Your task to perform on an android device: turn on data saver in the chrome app Image 0: 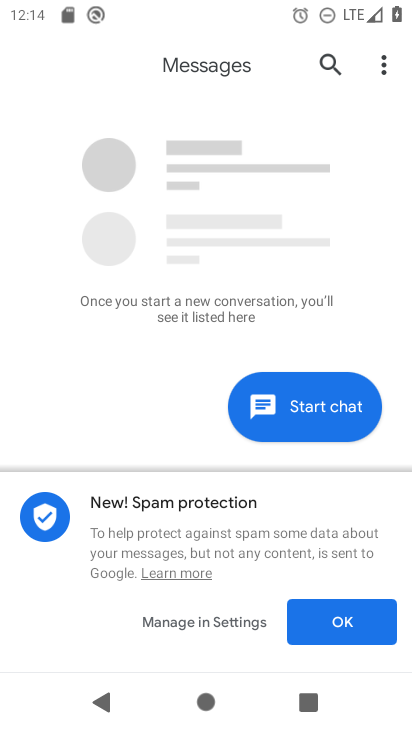
Step 0: press home button
Your task to perform on an android device: turn on data saver in the chrome app Image 1: 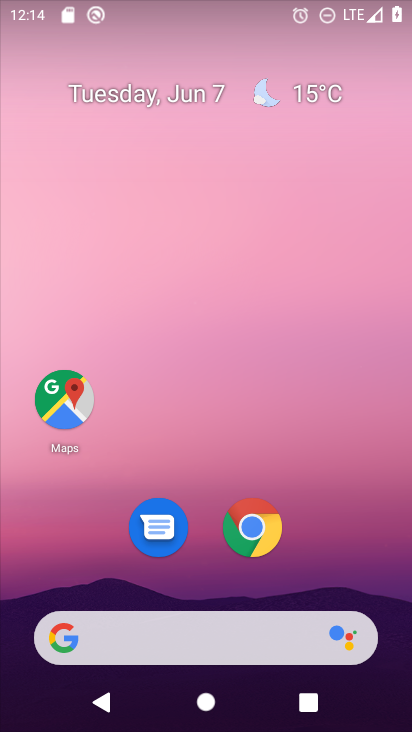
Step 1: drag from (365, 553) to (349, 85)
Your task to perform on an android device: turn on data saver in the chrome app Image 2: 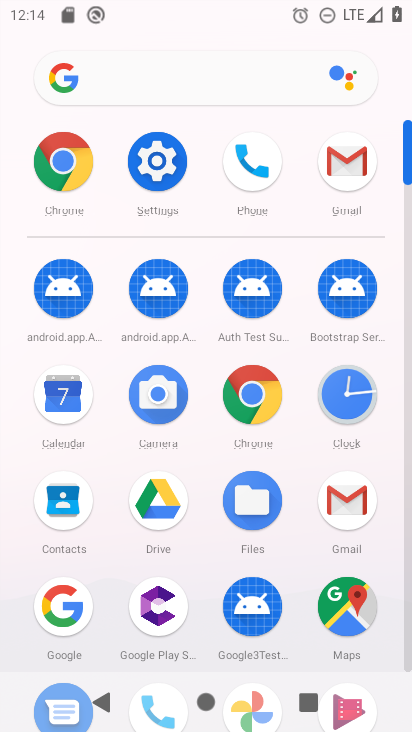
Step 2: click (260, 401)
Your task to perform on an android device: turn on data saver in the chrome app Image 3: 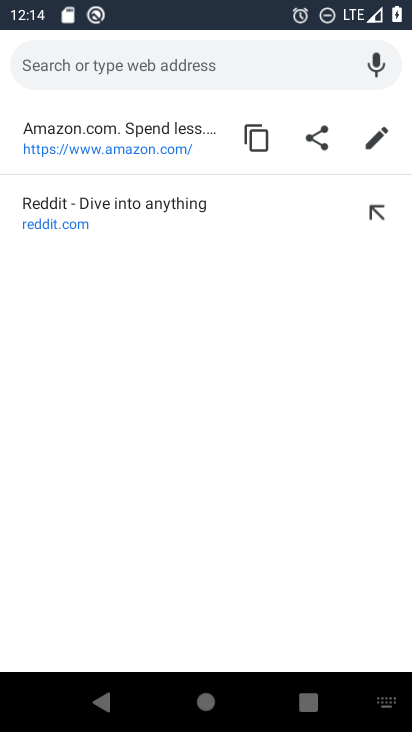
Step 3: press back button
Your task to perform on an android device: turn on data saver in the chrome app Image 4: 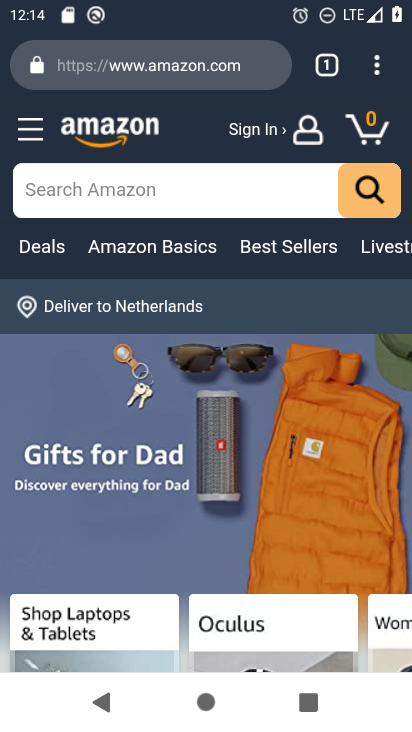
Step 4: click (378, 77)
Your task to perform on an android device: turn on data saver in the chrome app Image 5: 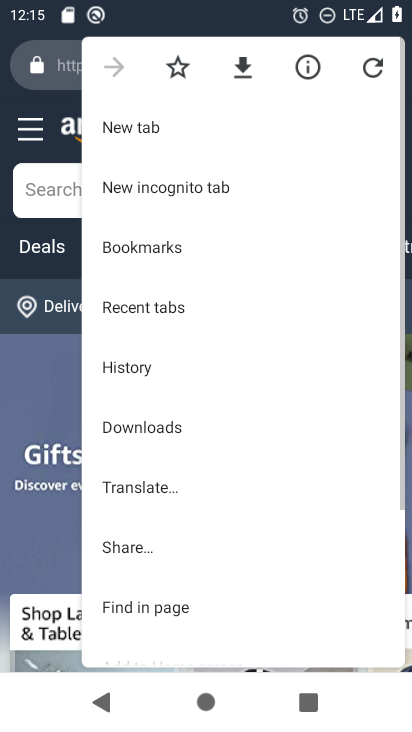
Step 5: drag from (300, 416) to (289, 238)
Your task to perform on an android device: turn on data saver in the chrome app Image 6: 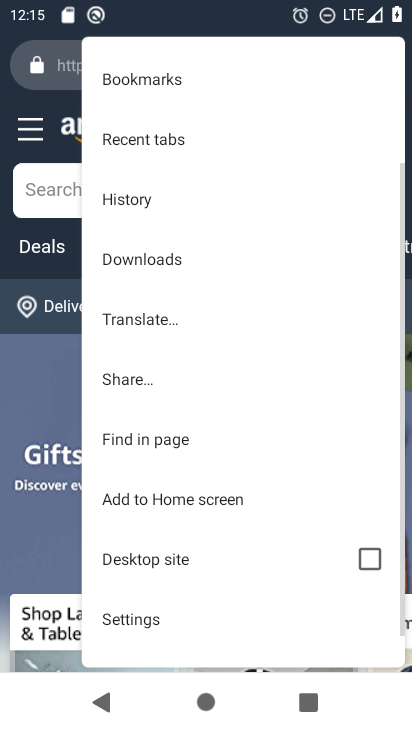
Step 6: drag from (287, 463) to (290, 283)
Your task to perform on an android device: turn on data saver in the chrome app Image 7: 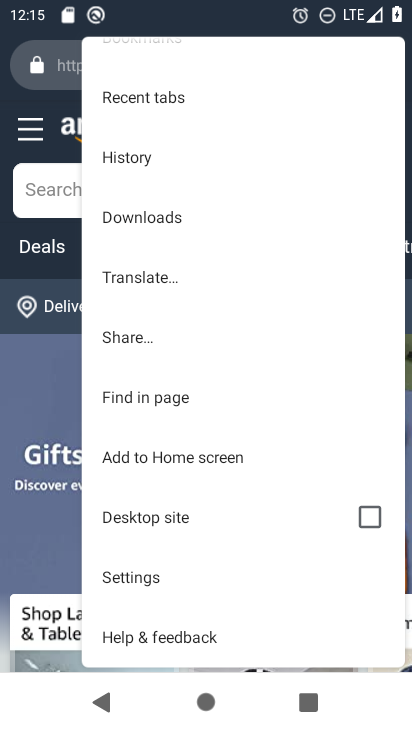
Step 7: drag from (290, 471) to (288, 298)
Your task to perform on an android device: turn on data saver in the chrome app Image 8: 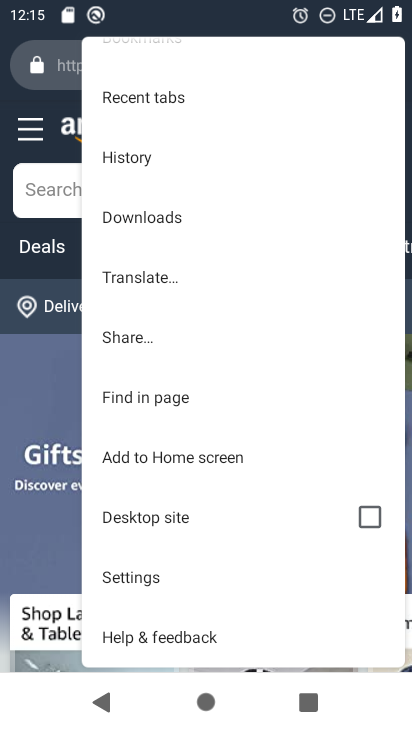
Step 8: click (166, 579)
Your task to perform on an android device: turn on data saver in the chrome app Image 9: 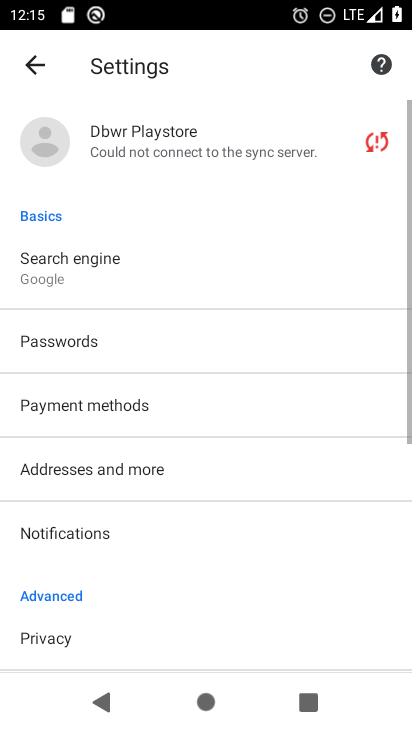
Step 9: drag from (294, 500) to (301, 340)
Your task to perform on an android device: turn on data saver in the chrome app Image 10: 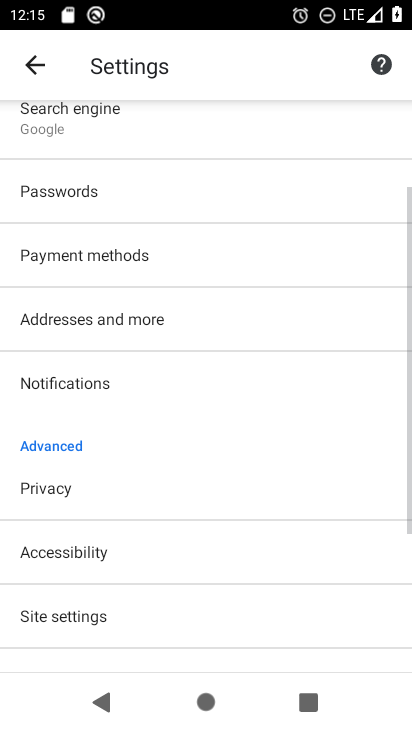
Step 10: drag from (289, 478) to (286, 341)
Your task to perform on an android device: turn on data saver in the chrome app Image 11: 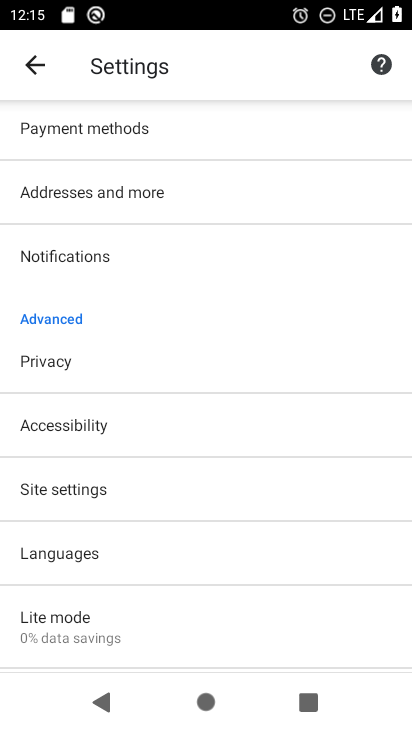
Step 11: drag from (278, 504) to (278, 364)
Your task to perform on an android device: turn on data saver in the chrome app Image 12: 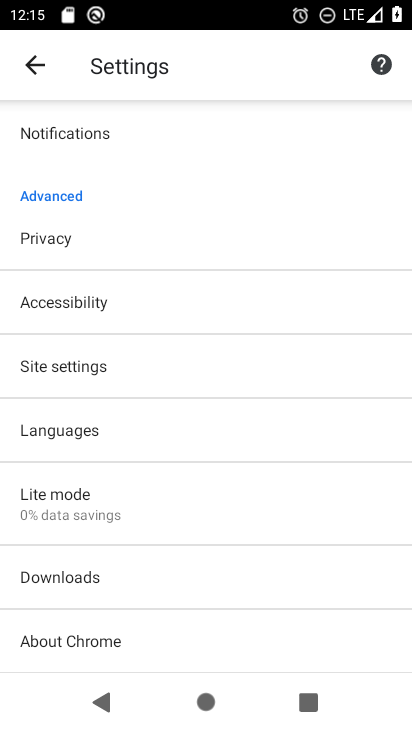
Step 12: drag from (257, 446) to (260, 293)
Your task to perform on an android device: turn on data saver in the chrome app Image 13: 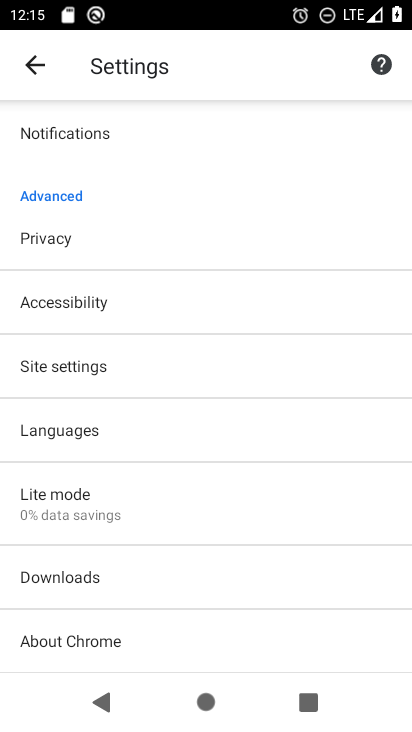
Step 13: click (184, 512)
Your task to perform on an android device: turn on data saver in the chrome app Image 14: 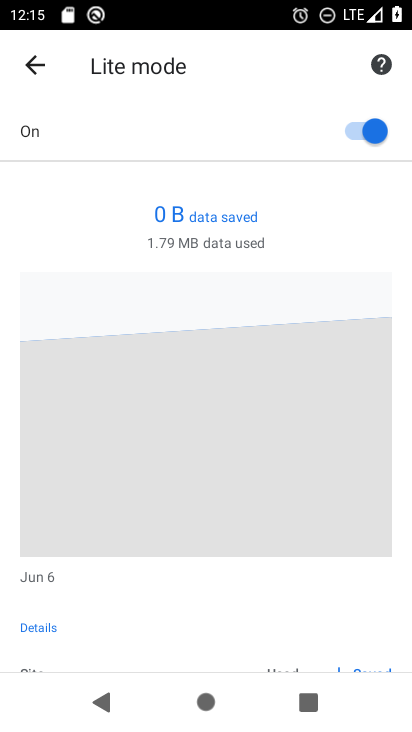
Step 14: click (367, 135)
Your task to perform on an android device: turn on data saver in the chrome app Image 15: 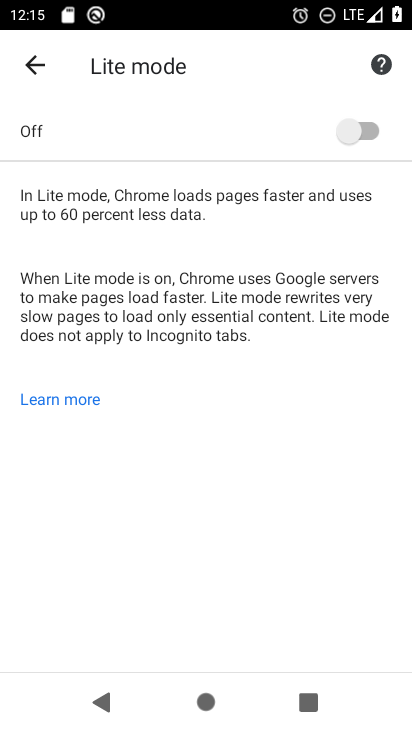
Step 15: task complete